Your task to perform on an android device: turn on improve location accuracy Image 0: 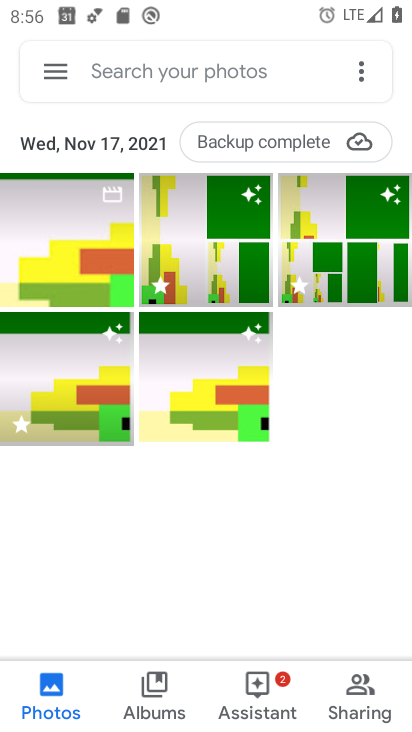
Step 0: press home button
Your task to perform on an android device: turn on improve location accuracy Image 1: 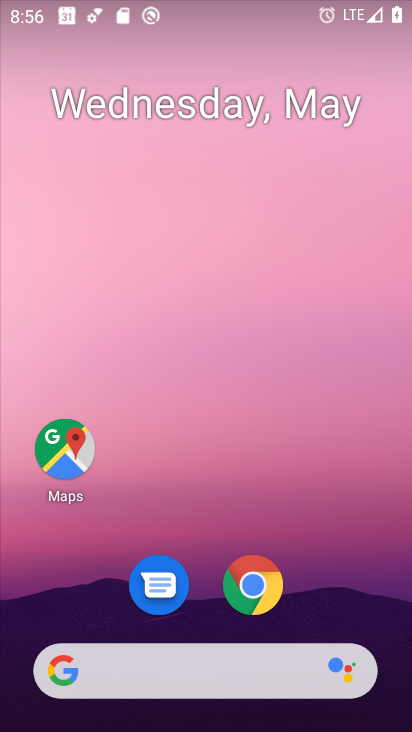
Step 1: drag from (332, 534) to (305, 70)
Your task to perform on an android device: turn on improve location accuracy Image 2: 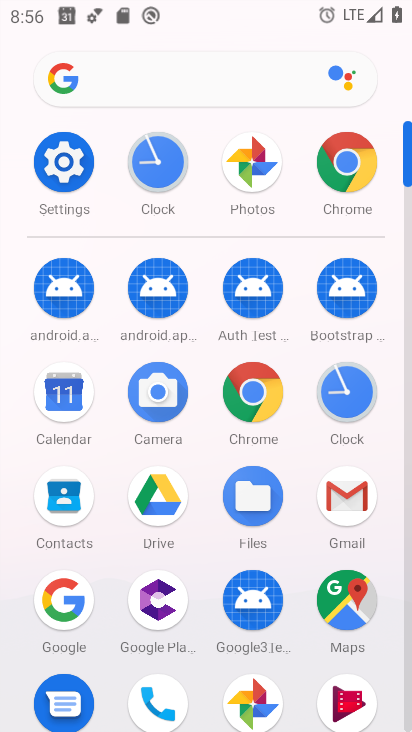
Step 2: click (70, 159)
Your task to perform on an android device: turn on improve location accuracy Image 3: 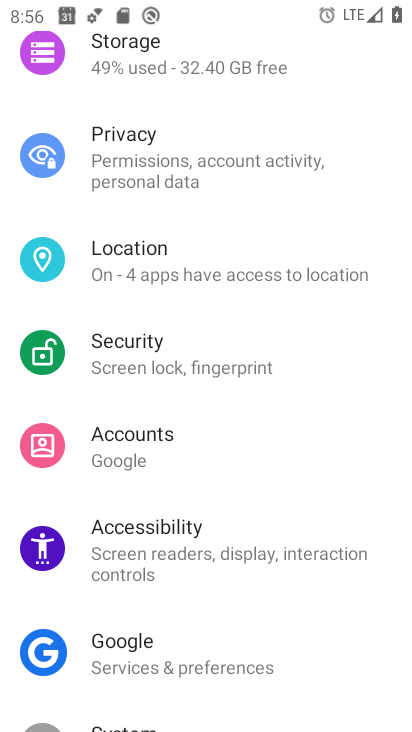
Step 3: click (262, 258)
Your task to perform on an android device: turn on improve location accuracy Image 4: 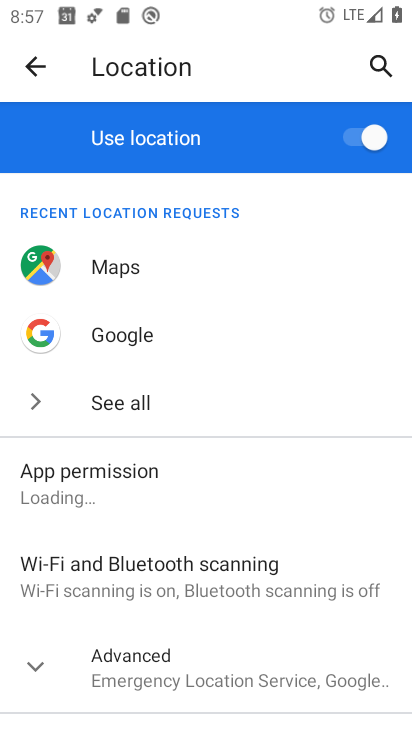
Step 4: click (36, 661)
Your task to perform on an android device: turn on improve location accuracy Image 5: 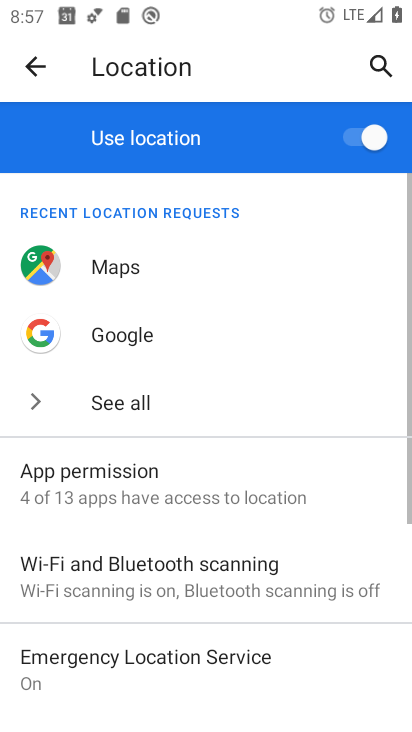
Step 5: drag from (243, 510) to (250, 213)
Your task to perform on an android device: turn on improve location accuracy Image 6: 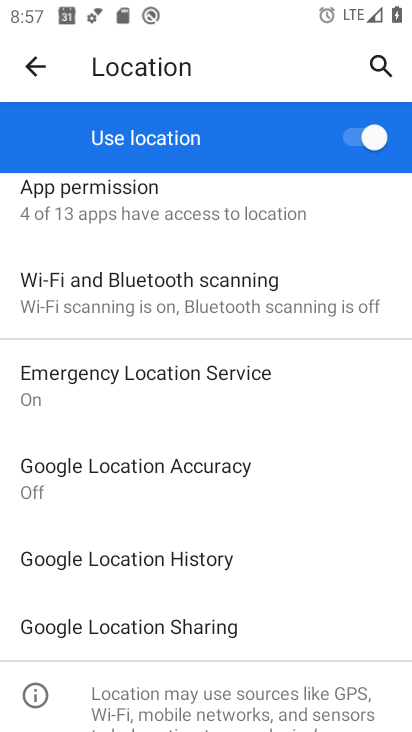
Step 6: click (192, 476)
Your task to perform on an android device: turn on improve location accuracy Image 7: 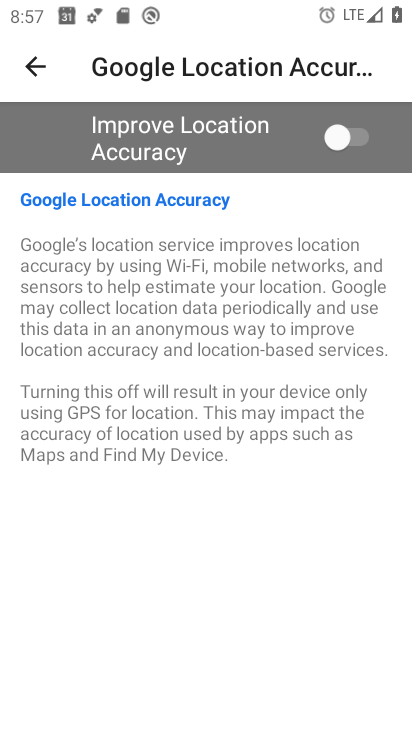
Step 7: click (354, 136)
Your task to perform on an android device: turn on improve location accuracy Image 8: 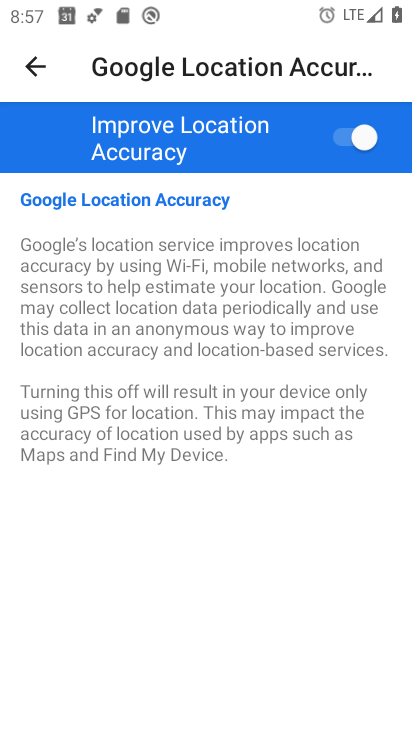
Step 8: task complete